Your task to perform on an android device: Go to privacy settings Image 0: 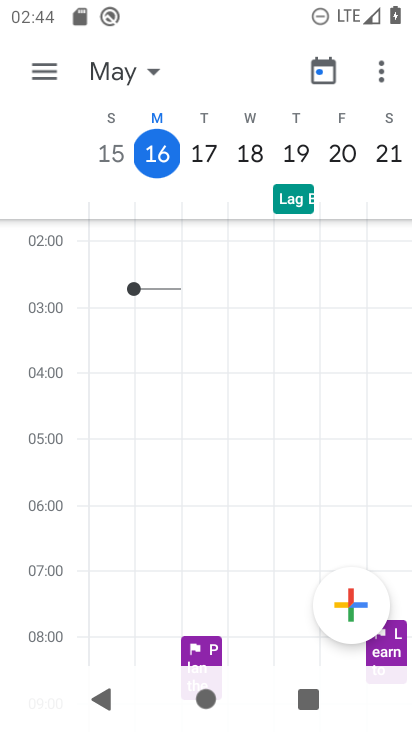
Step 0: press home button
Your task to perform on an android device: Go to privacy settings Image 1: 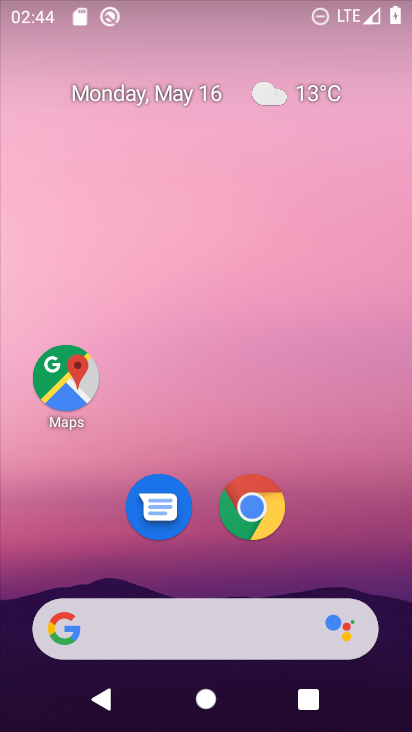
Step 1: drag from (356, 533) to (205, 12)
Your task to perform on an android device: Go to privacy settings Image 2: 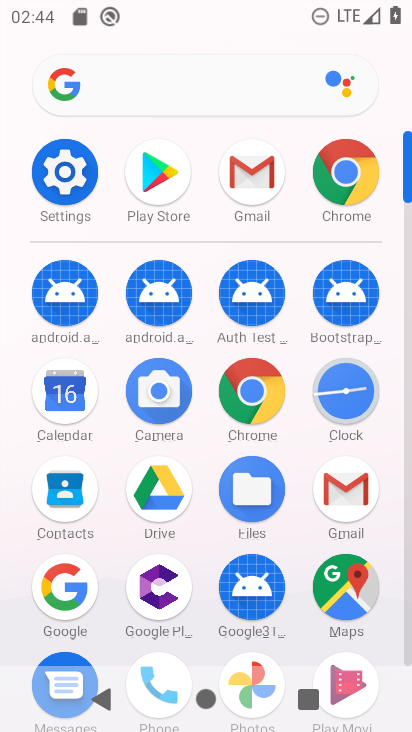
Step 2: click (55, 142)
Your task to perform on an android device: Go to privacy settings Image 3: 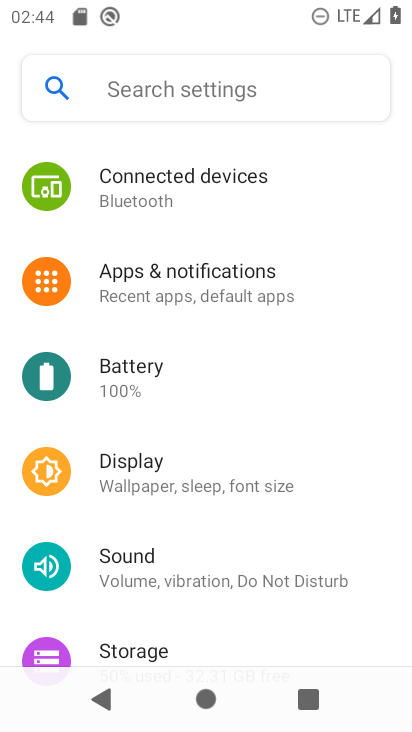
Step 3: drag from (217, 606) to (211, 137)
Your task to perform on an android device: Go to privacy settings Image 4: 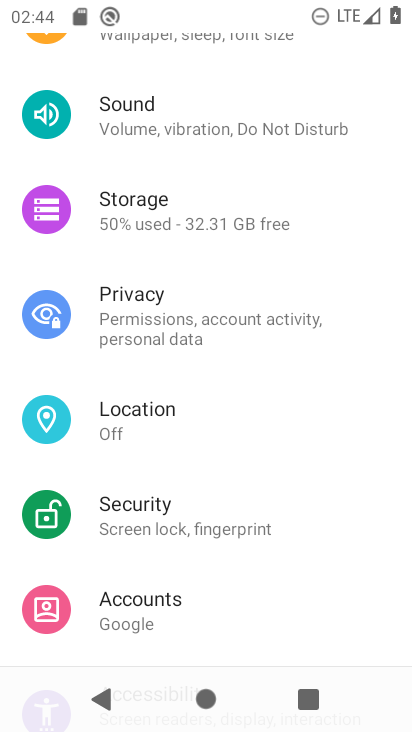
Step 4: click (200, 336)
Your task to perform on an android device: Go to privacy settings Image 5: 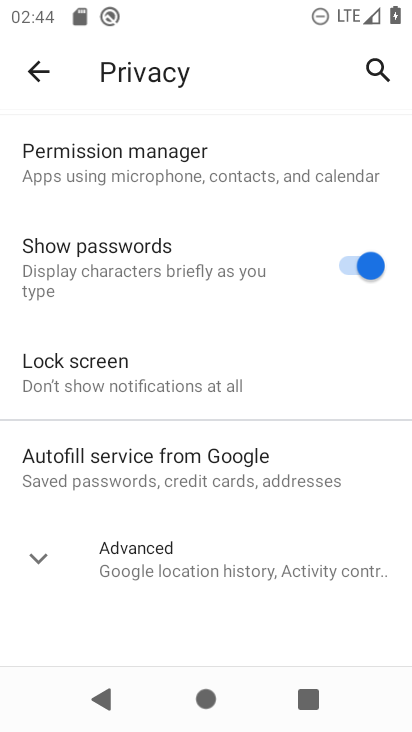
Step 5: task complete